Your task to perform on an android device: Search for sushi restaurants on Maps Image 0: 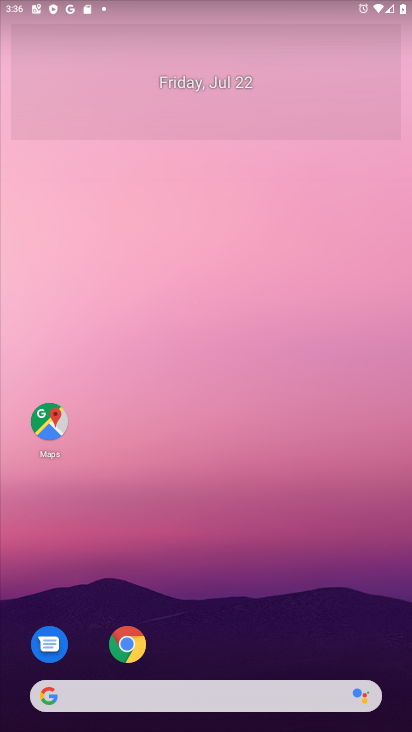
Step 0: click (48, 425)
Your task to perform on an android device: Search for sushi restaurants on Maps Image 1: 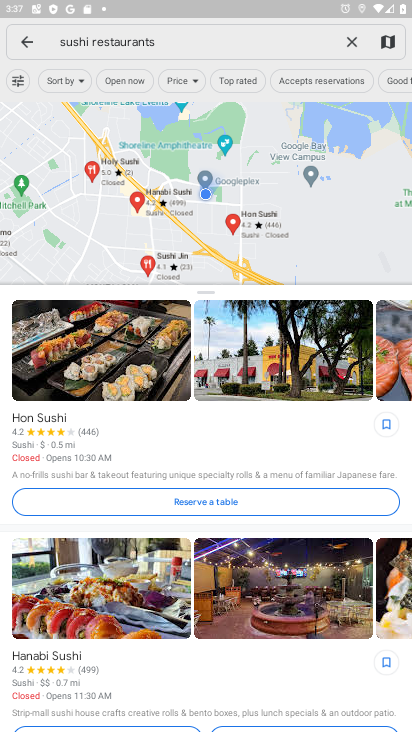
Step 1: task complete